Your task to perform on an android device: turn pop-ups on in chrome Image 0: 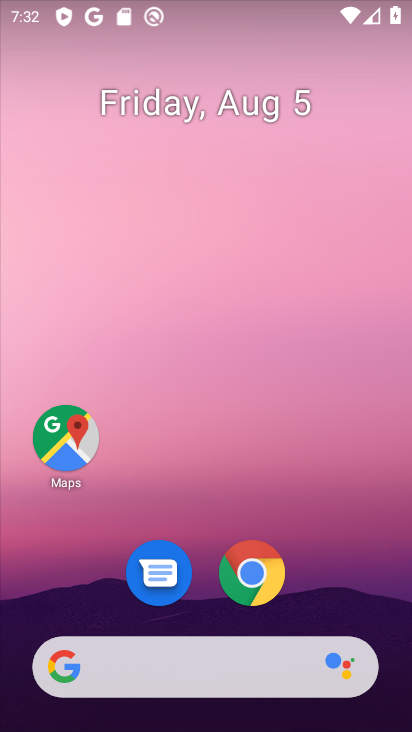
Step 0: click (256, 589)
Your task to perform on an android device: turn pop-ups on in chrome Image 1: 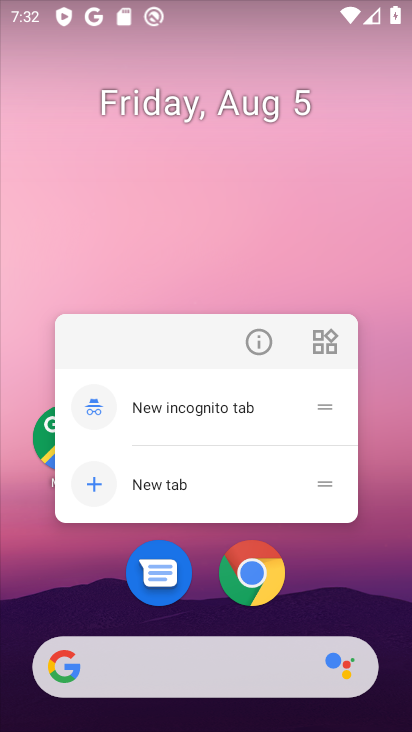
Step 1: click (256, 589)
Your task to perform on an android device: turn pop-ups on in chrome Image 2: 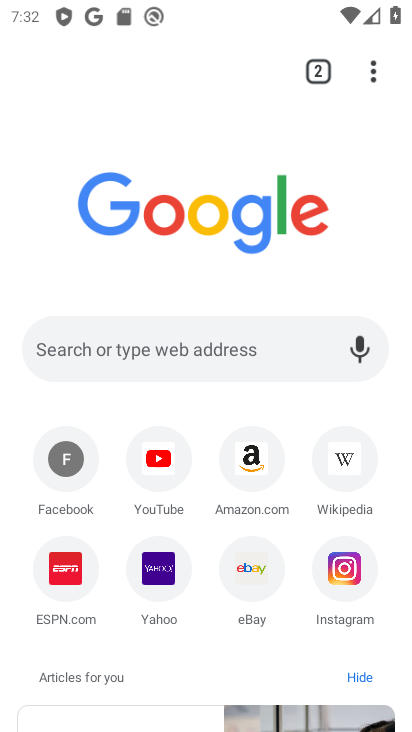
Step 2: click (366, 78)
Your task to perform on an android device: turn pop-ups on in chrome Image 3: 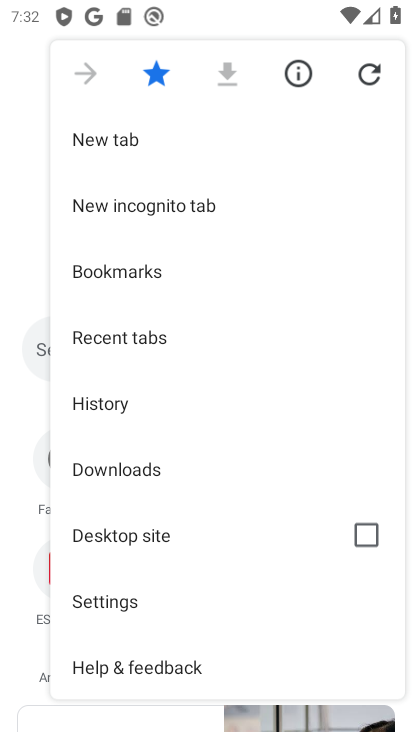
Step 3: click (137, 606)
Your task to perform on an android device: turn pop-ups on in chrome Image 4: 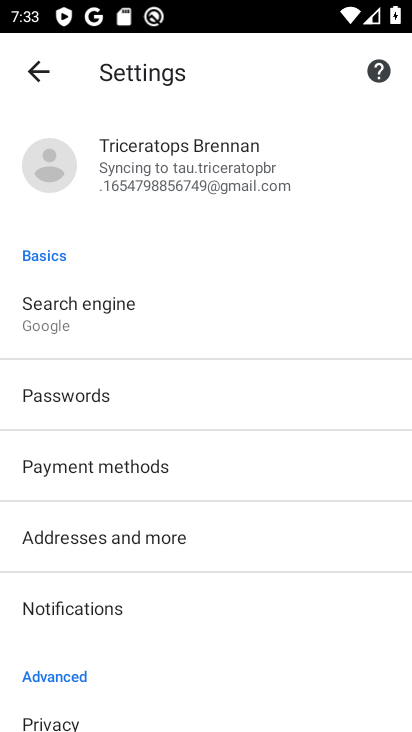
Step 4: drag from (196, 618) to (241, 289)
Your task to perform on an android device: turn pop-ups on in chrome Image 5: 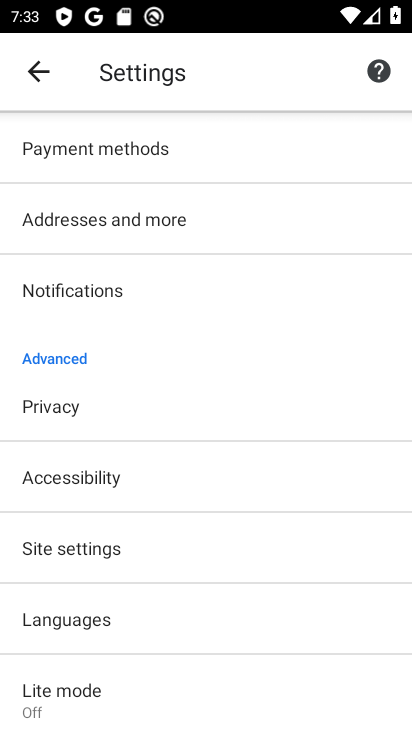
Step 5: click (107, 547)
Your task to perform on an android device: turn pop-ups on in chrome Image 6: 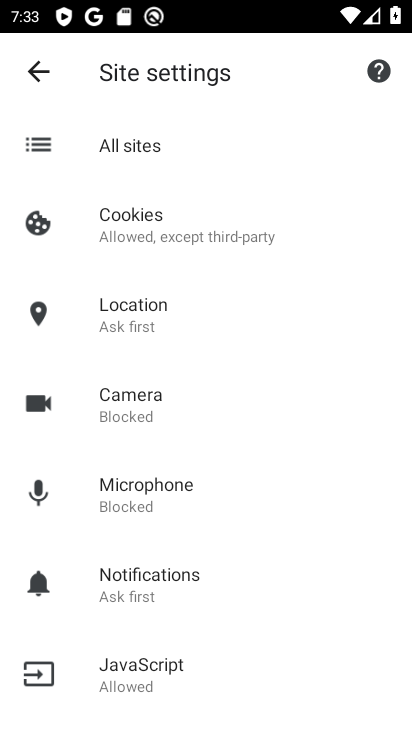
Step 6: drag from (221, 529) to (246, 306)
Your task to perform on an android device: turn pop-ups on in chrome Image 7: 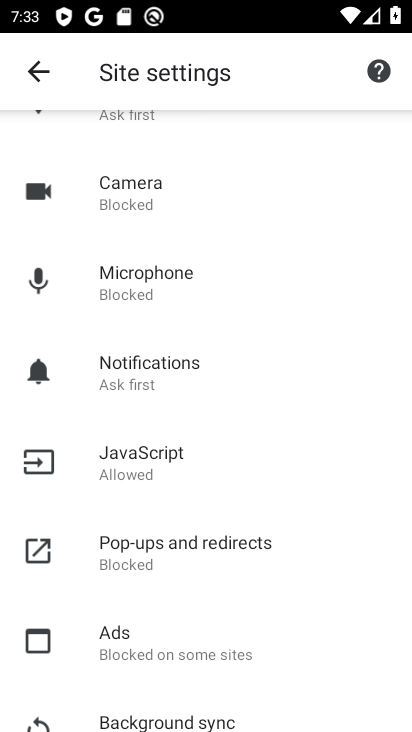
Step 7: click (227, 543)
Your task to perform on an android device: turn pop-ups on in chrome Image 8: 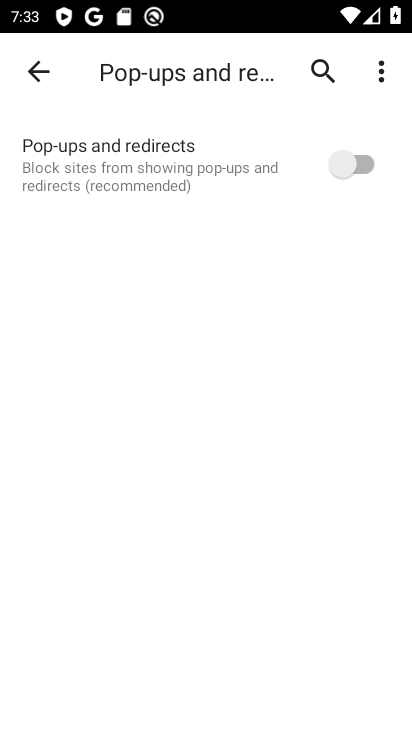
Step 8: click (352, 156)
Your task to perform on an android device: turn pop-ups on in chrome Image 9: 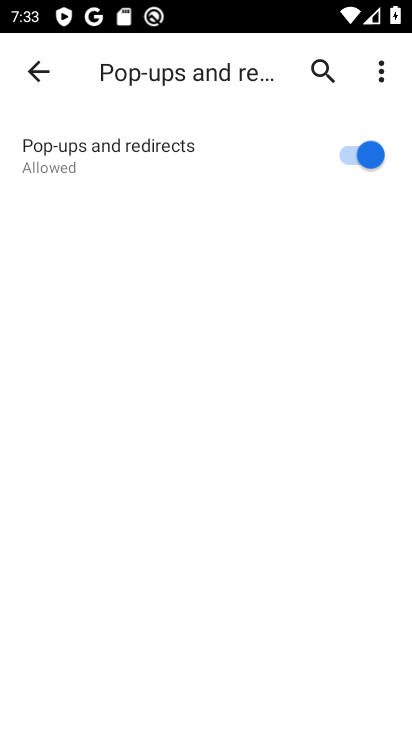
Step 9: task complete